Your task to perform on an android device: remove spam from my inbox in the gmail app Image 0: 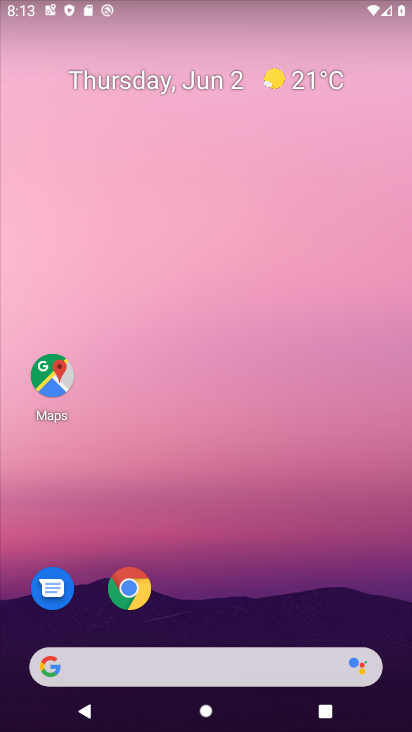
Step 0: drag from (214, 661) to (197, 324)
Your task to perform on an android device: remove spam from my inbox in the gmail app Image 1: 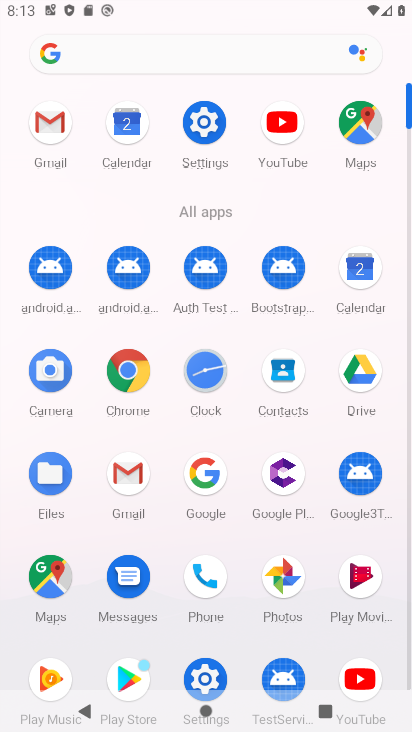
Step 1: click (47, 146)
Your task to perform on an android device: remove spam from my inbox in the gmail app Image 2: 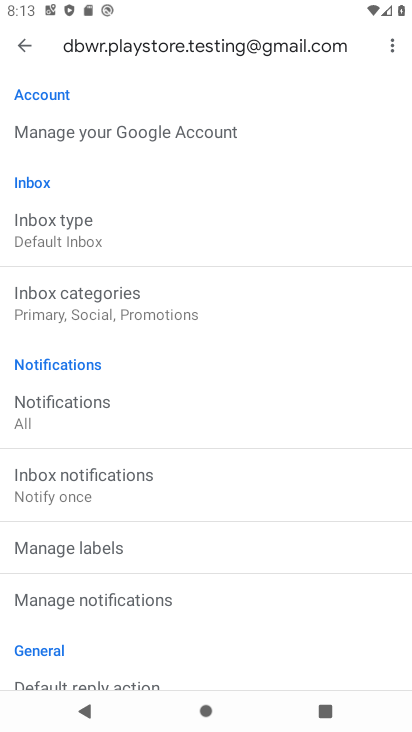
Step 2: click (28, 46)
Your task to perform on an android device: remove spam from my inbox in the gmail app Image 3: 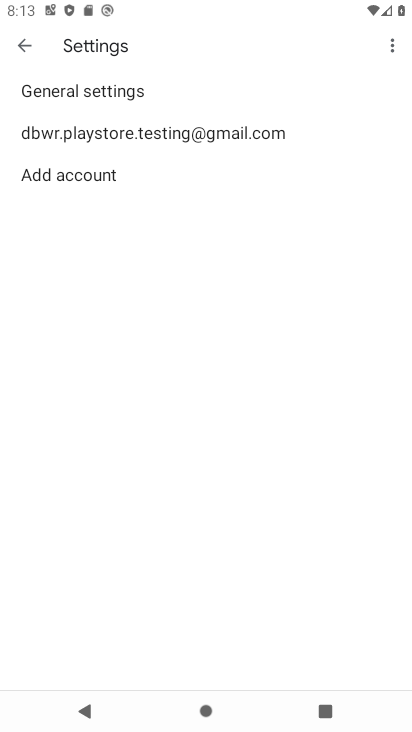
Step 3: click (28, 46)
Your task to perform on an android device: remove spam from my inbox in the gmail app Image 4: 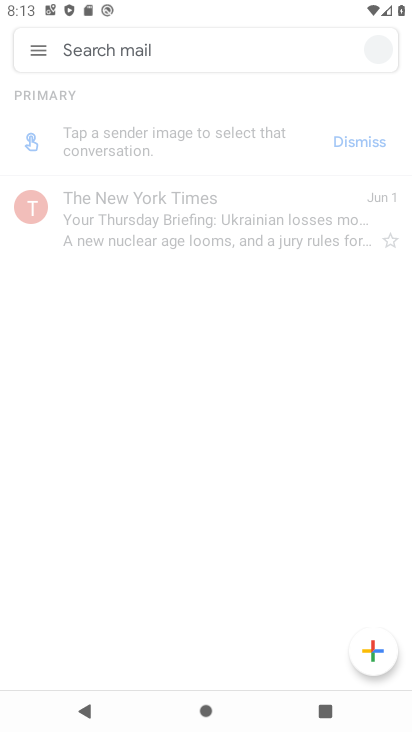
Step 4: click (30, 47)
Your task to perform on an android device: remove spam from my inbox in the gmail app Image 5: 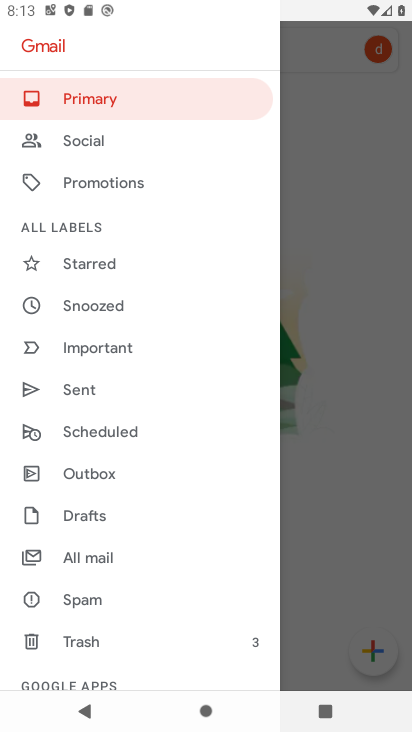
Step 5: click (94, 598)
Your task to perform on an android device: remove spam from my inbox in the gmail app Image 6: 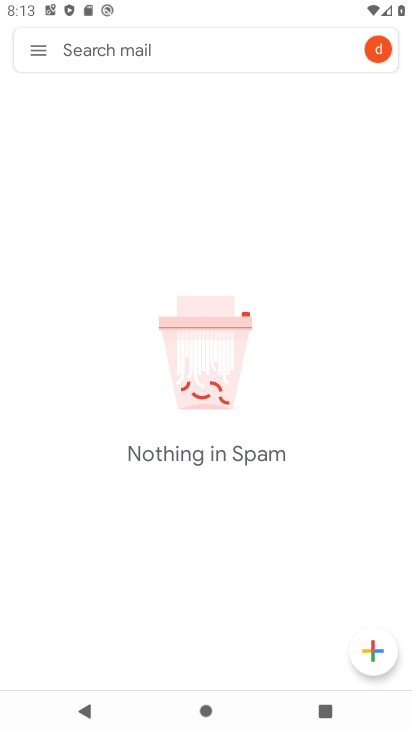
Step 6: task complete